Your task to perform on an android device: turn on the 12-hour format for clock Image 0: 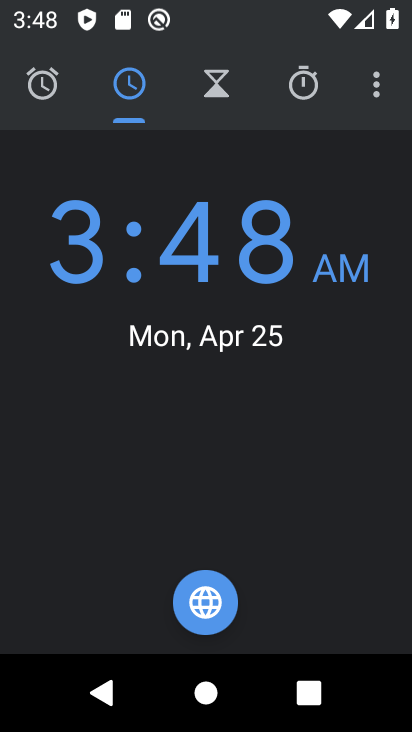
Step 0: click (393, 88)
Your task to perform on an android device: turn on the 12-hour format for clock Image 1: 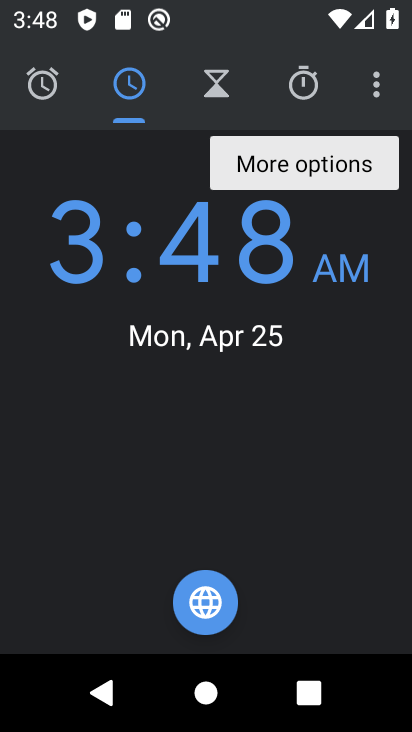
Step 1: drag from (380, 94) to (367, 156)
Your task to perform on an android device: turn on the 12-hour format for clock Image 2: 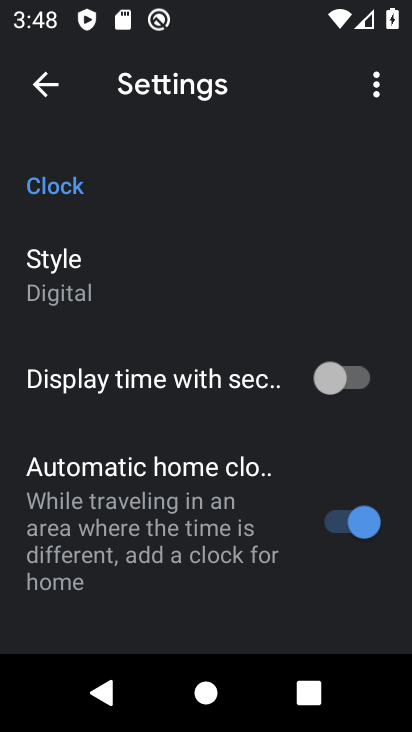
Step 2: drag from (212, 306) to (259, 127)
Your task to perform on an android device: turn on the 12-hour format for clock Image 3: 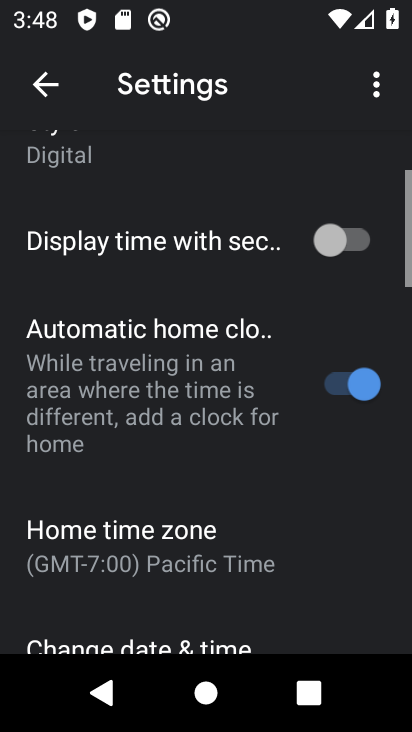
Step 3: drag from (146, 546) to (218, 190)
Your task to perform on an android device: turn on the 12-hour format for clock Image 4: 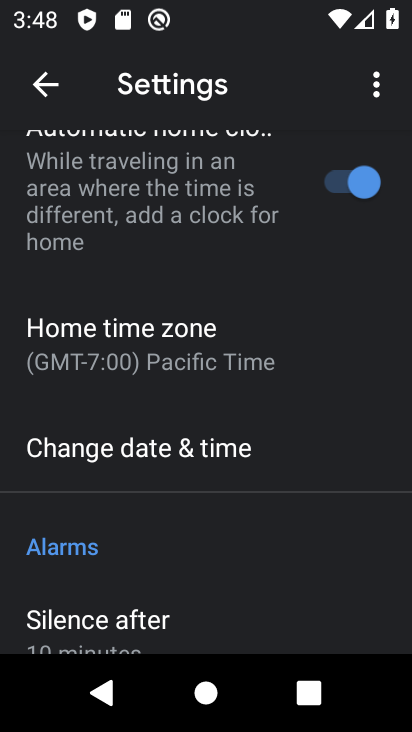
Step 4: click (236, 445)
Your task to perform on an android device: turn on the 12-hour format for clock Image 5: 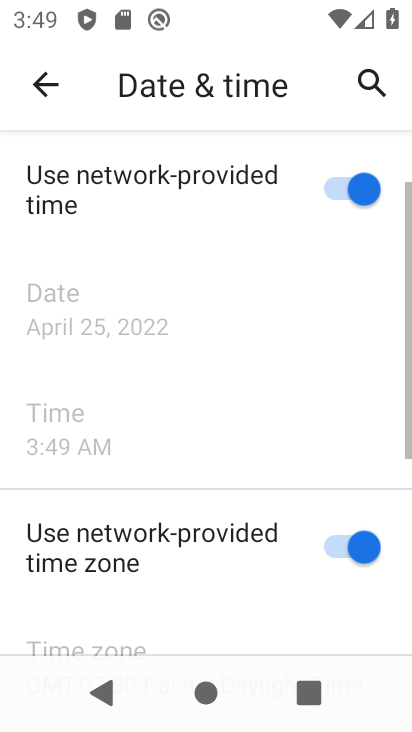
Step 5: task complete